Your task to perform on an android device: Search for Mexican restaurants on Maps Image 0: 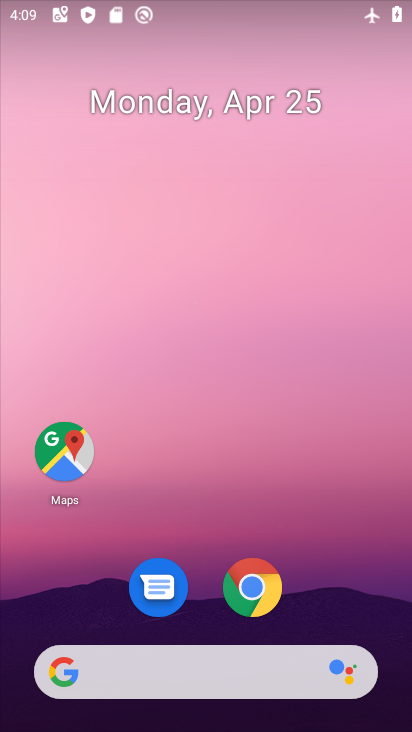
Step 0: click (62, 459)
Your task to perform on an android device: Search for Mexican restaurants on Maps Image 1: 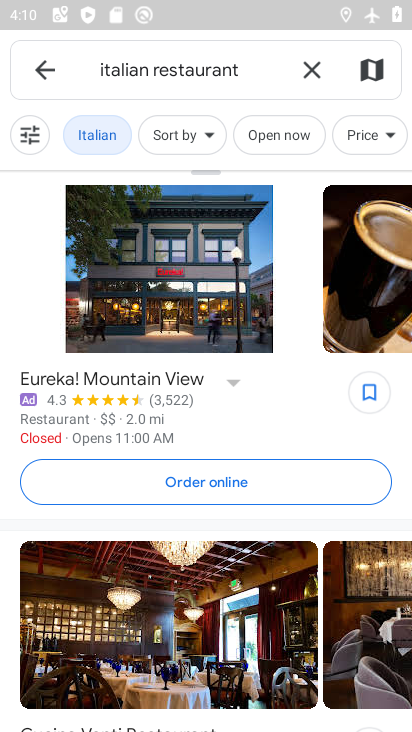
Step 1: click (315, 74)
Your task to perform on an android device: Search for Mexican restaurants on Maps Image 2: 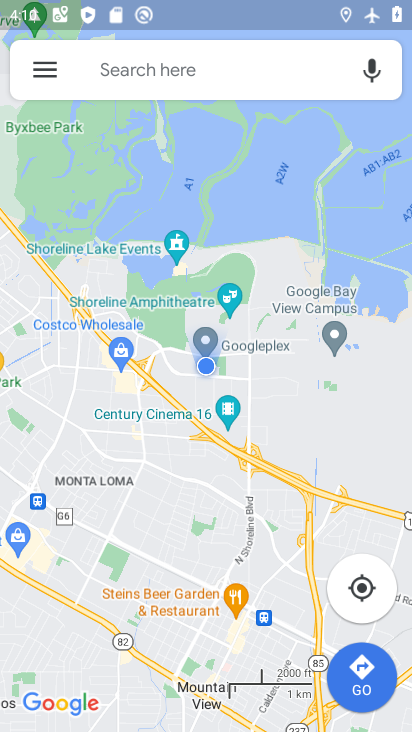
Step 2: click (120, 74)
Your task to perform on an android device: Search for Mexican restaurants on Maps Image 3: 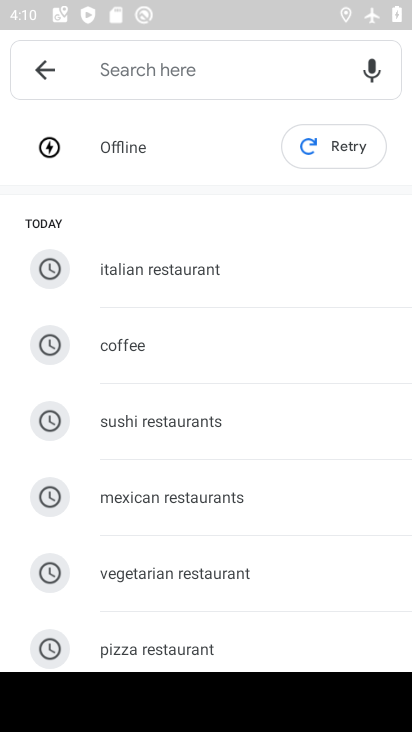
Step 3: type "mexican restaurant"
Your task to perform on an android device: Search for Mexican restaurants on Maps Image 4: 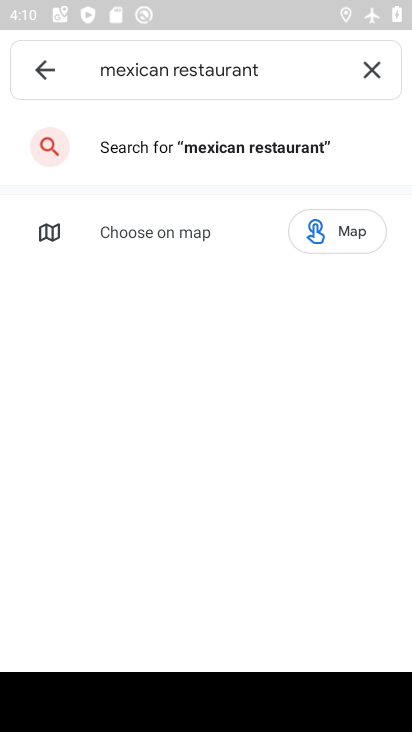
Step 4: click (230, 144)
Your task to perform on an android device: Search for Mexican restaurants on Maps Image 5: 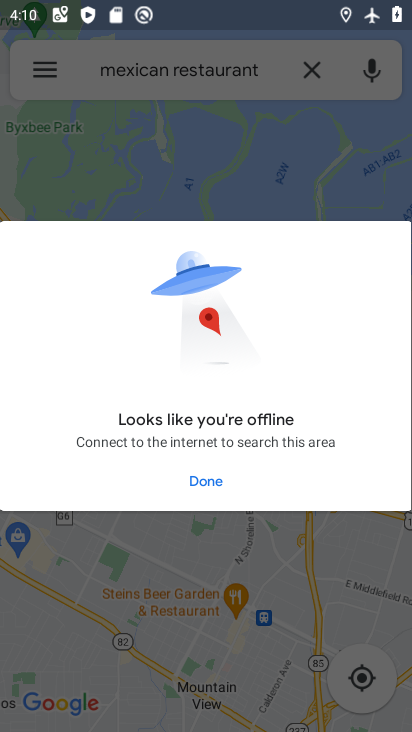
Step 5: task complete